Your task to perform on an android device: Open Wikipedia Image 0: 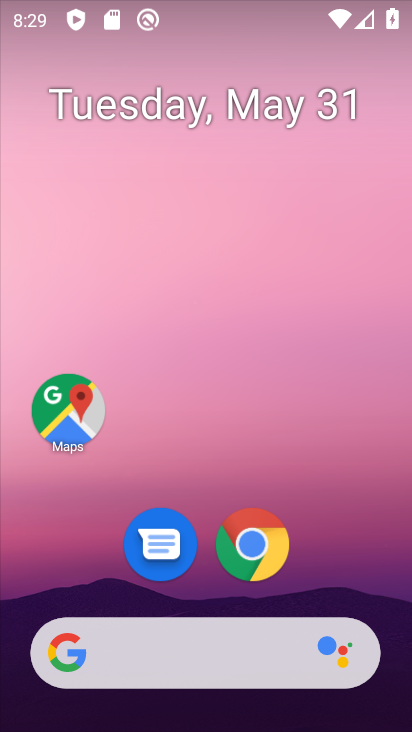
Step 0: click (257, 549)
Your task to perform on an android device: Open Wikipedia Image 1: 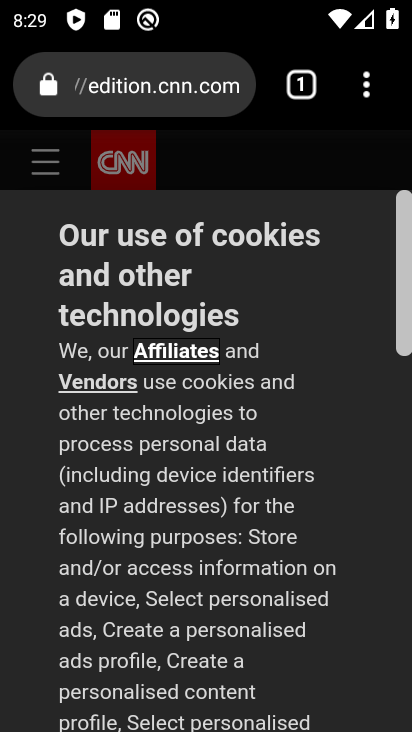
Step 1: click (148, 79)
Your task to perform on an android device: Open Wikipedia Image 2: 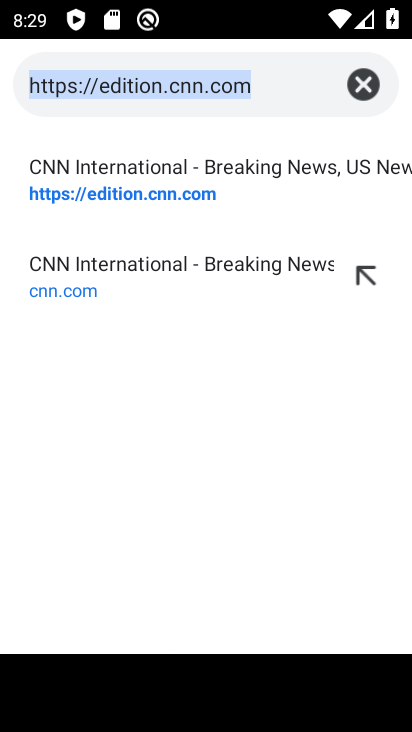
Step 2: type "wikipedia"
Your task to perform on an android device: Open Wikipedia Image 3: 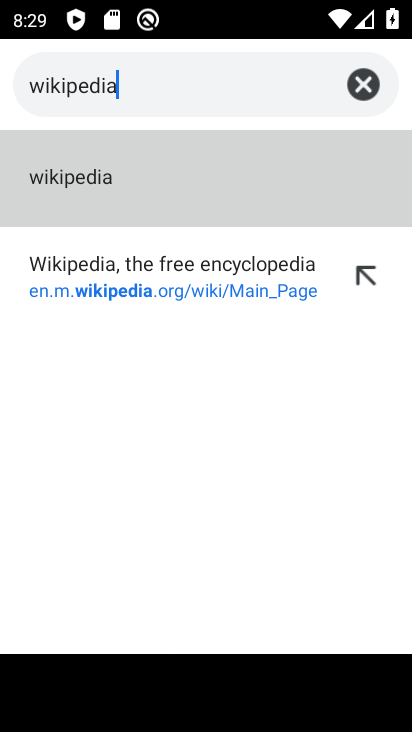
Step 3: click (36, 164)
Your task to perform on an android device: Open Wikipedia Image 4: 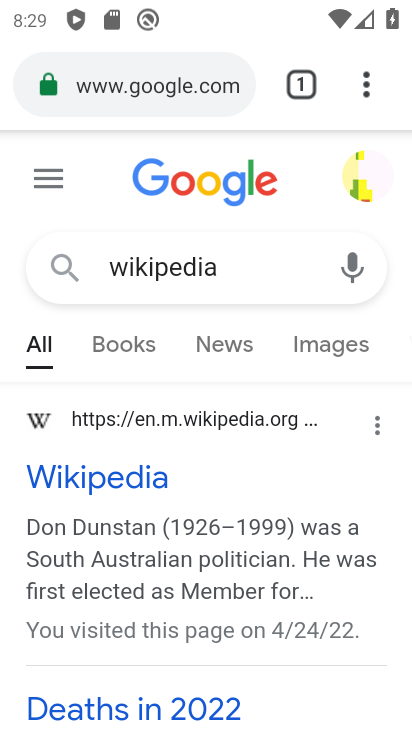
Step 4: click (99, 478)
Your task to perform on an android device: Open Wikipedia Image 5: 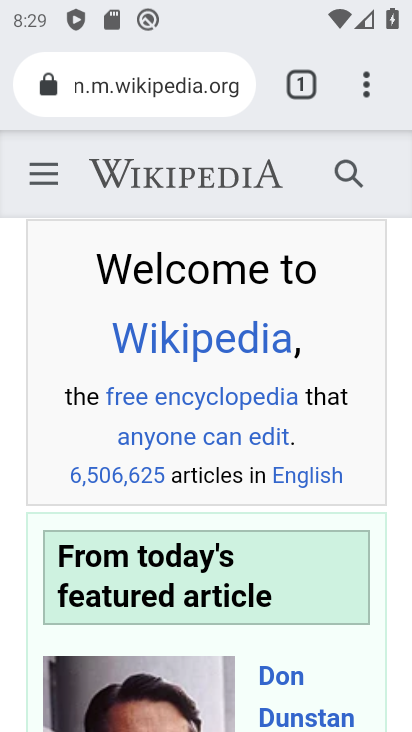
Step 5: task complete